Your task to perform on an android device: Open privacy settings Image 0: 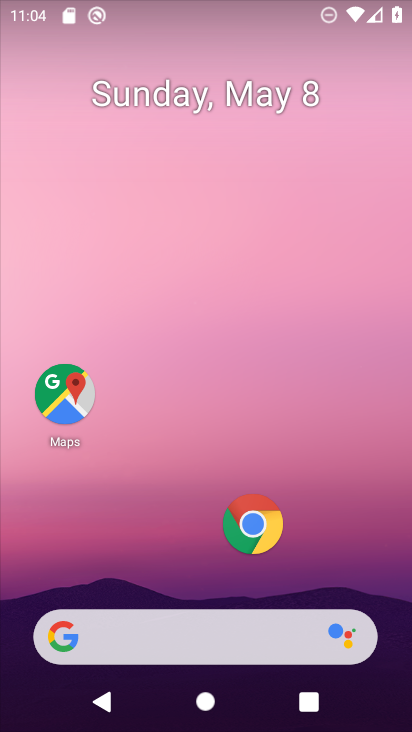
Step 0: drag from (186, 511) to (227, 56)
Your task to perform on an android device: Open privacy settings Image 1: 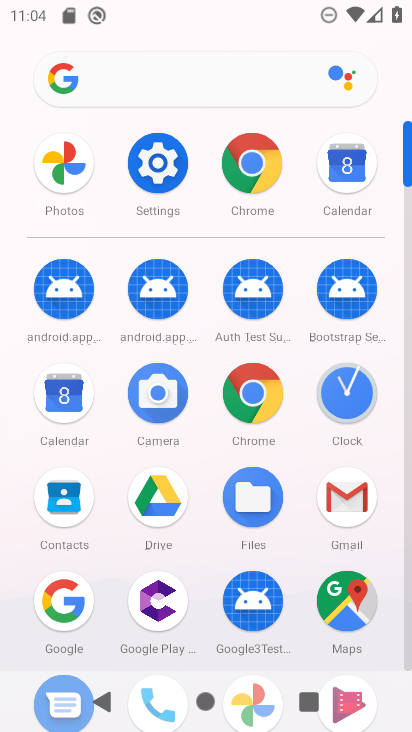
Step 1: click (158, 154)
Your task to perform on an android device: Open privacy settings Image 2: 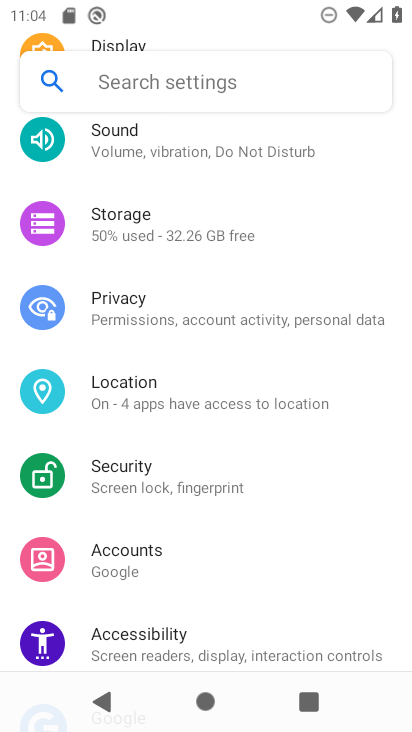
Step 2: click (197, 312)
Your task to perform on an android device: Open privacy settings Image 3: 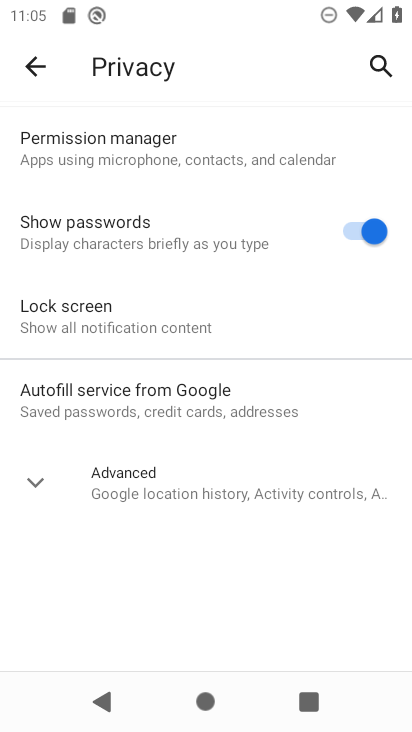
Step 3: task complete